Your task to perform on an android device: turn on bluetooth scan Image 0: 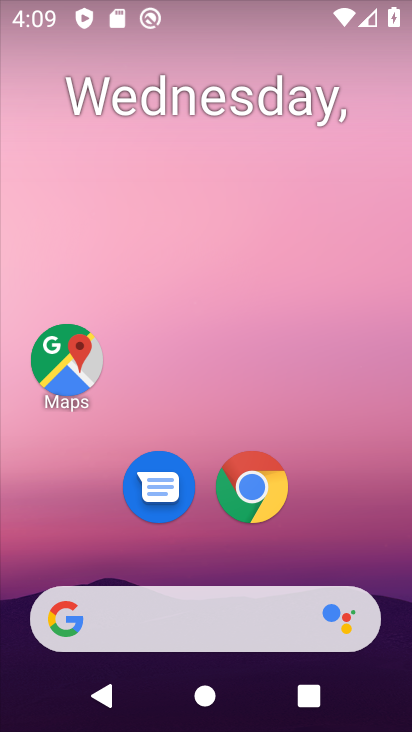
Step 0: press home button
Your task to perform on an android device: turn on bluetooth scan Image 1: 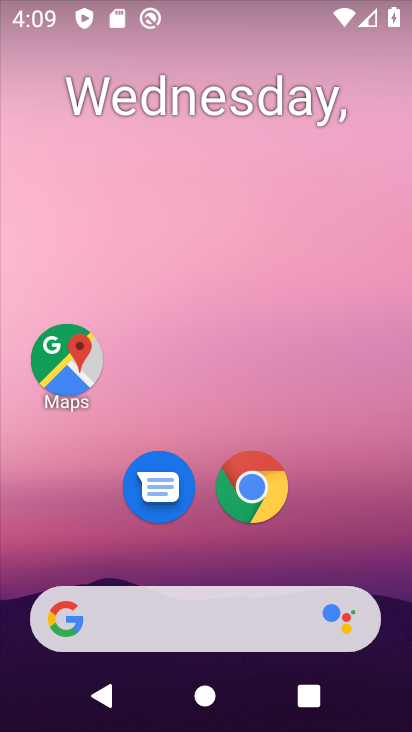
Step 1: drag from (207, 552) to (226, 21)
Your task to perform on an android device: turn on bluetooth scan Image 2: 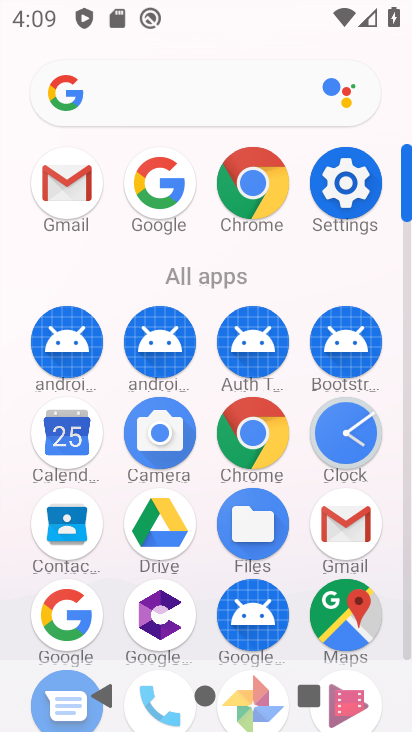
Step 2: click (343, 177)
Your task to perform on an android device: turn on bluetooth scan Image 3: 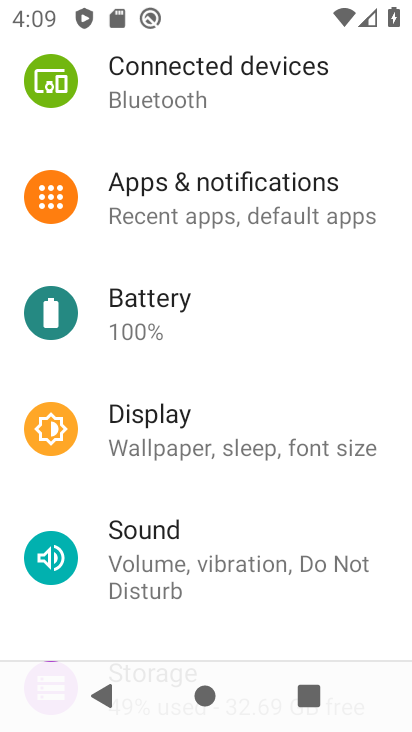
Step 3: drag from (210, 465) to (235, 57)
Your task to perform on an android device: turn on bluetooth scan Image 4: 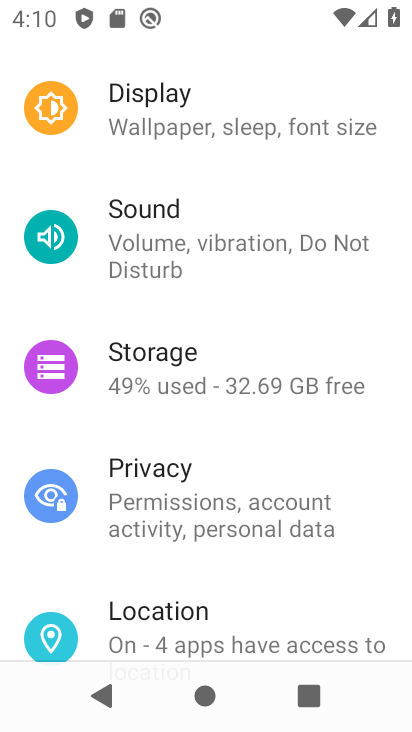
Step 4: click (223, 614)
Your task to perform on an android device: turn on bluetooth scan Image 5: 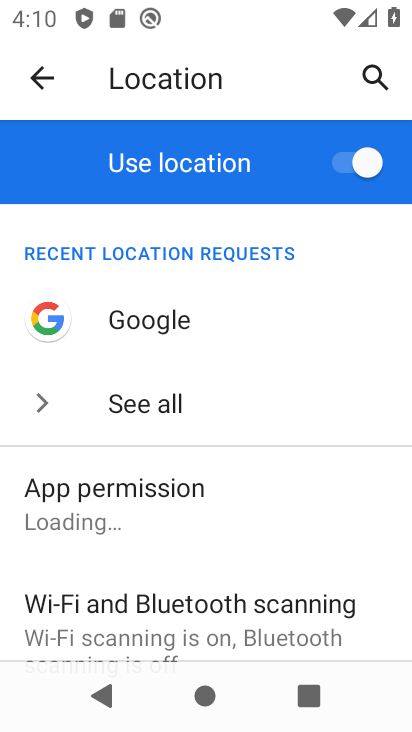
Step 5: click (236, 619)
Your task to perform on an android device: turn on bluetooth scan Image 6: 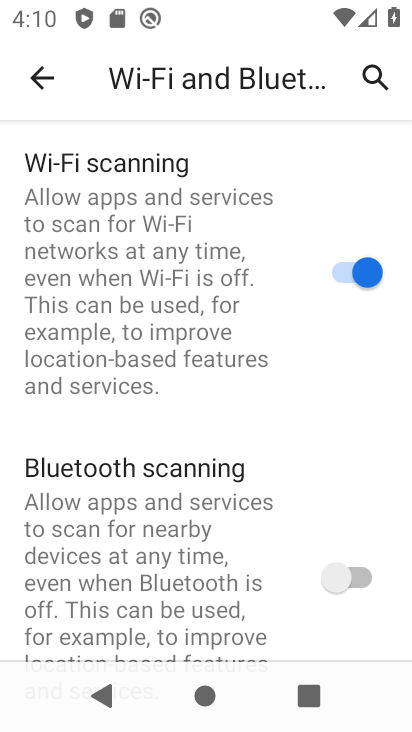
Step 6: click (346, 573)
Your task to perform on an android device: turn on bluetooth scan Image 7: 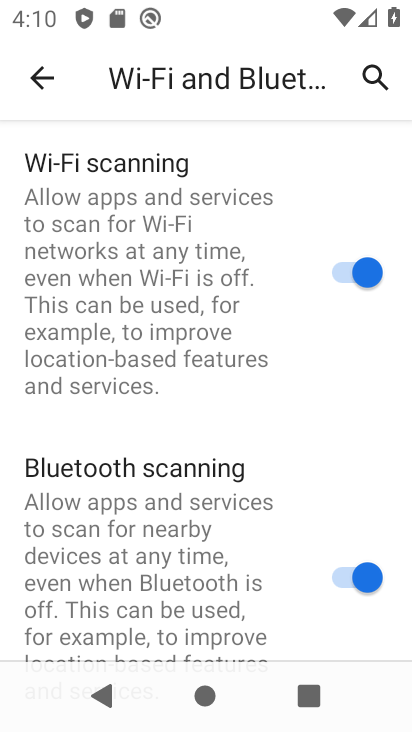
Step 7: task complete